Your task to perform on an android device: Go to internet settings Image 0: 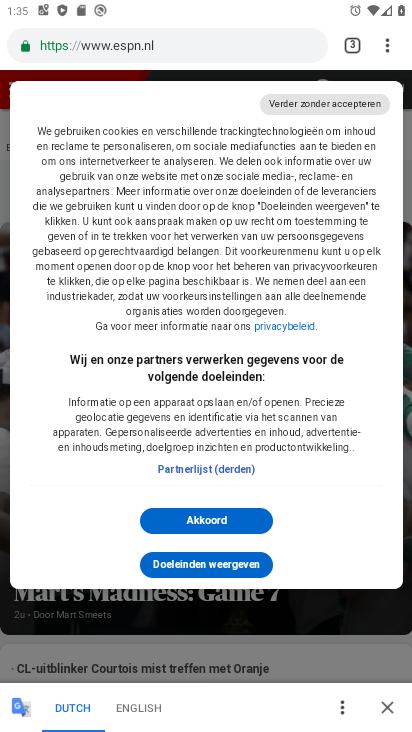
Step 0: press home button
Your task to perform on an android device: Go to internet settings Image 1: 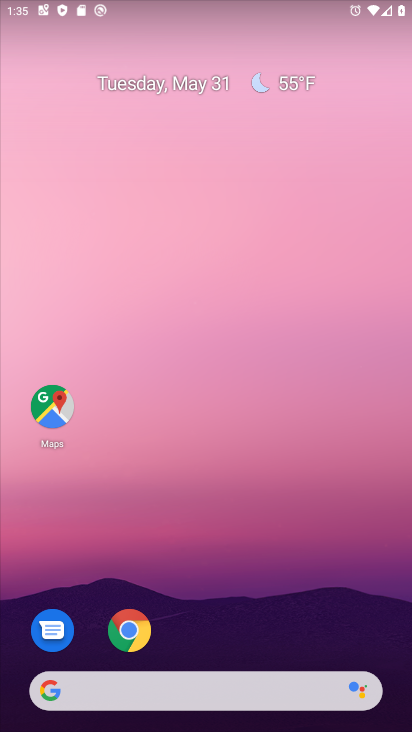
Step 1: drag from (148, 589) to (195, 281)
Your task to perform on an android device: Go to internet settings Image 2: 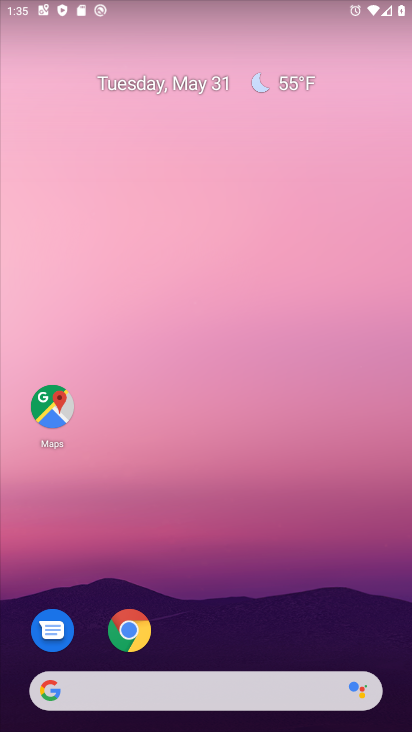
Step 2: drag from (266, 675) to (288, 140)
Your task to perform on an android device: Go to internet settings Image 3: 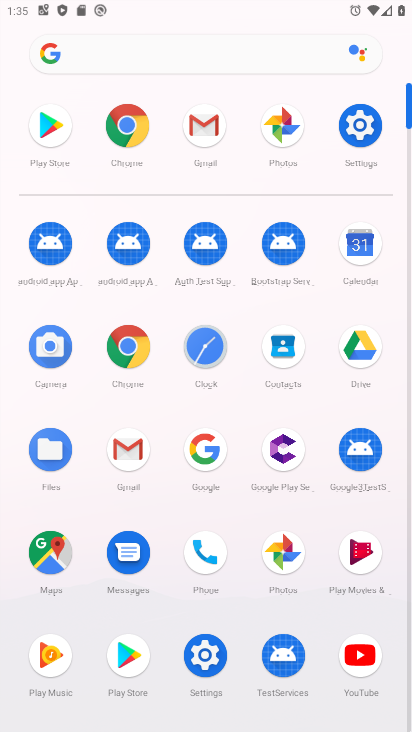
Step 3: click (374, 121)
Your task to perform on an android device: Go to internet settings Image 4: 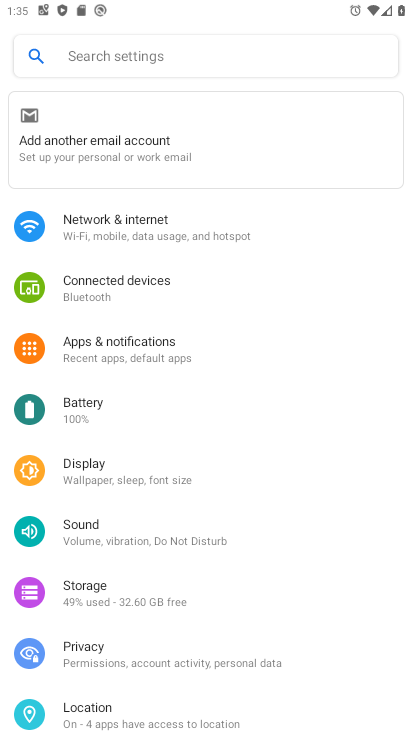
Step 4: click (154, 238)
Your task to perform on an android device: Go to internet settings Image 5: 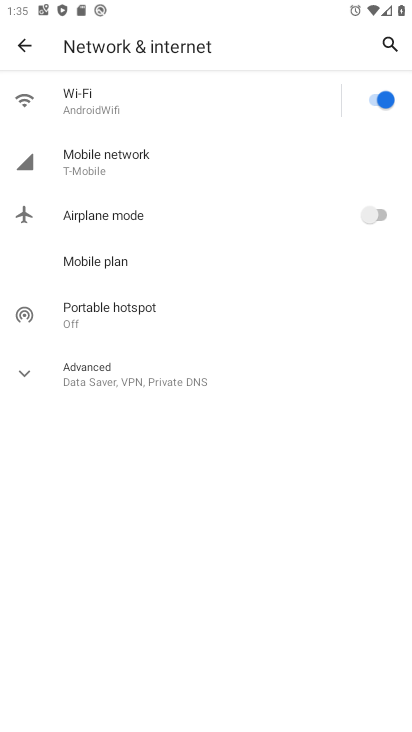
Step 5: click (143, 362)
Your task to perform on an android device: Go to internet settings Image 6: 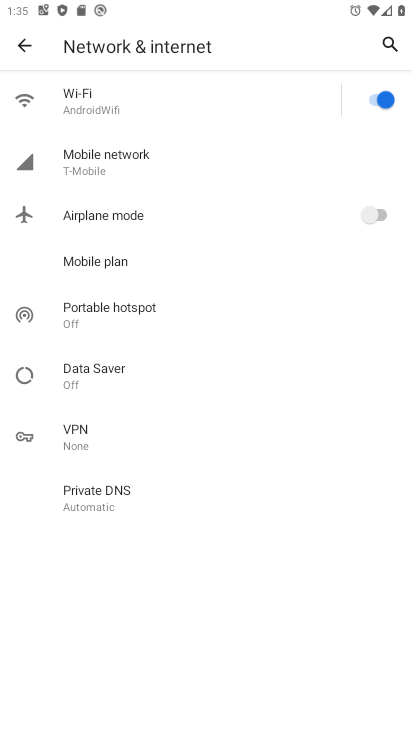
Step 6: task complete